Your task to perform on an android device: Add "energizer triple a" to the cart on costco Image 0: 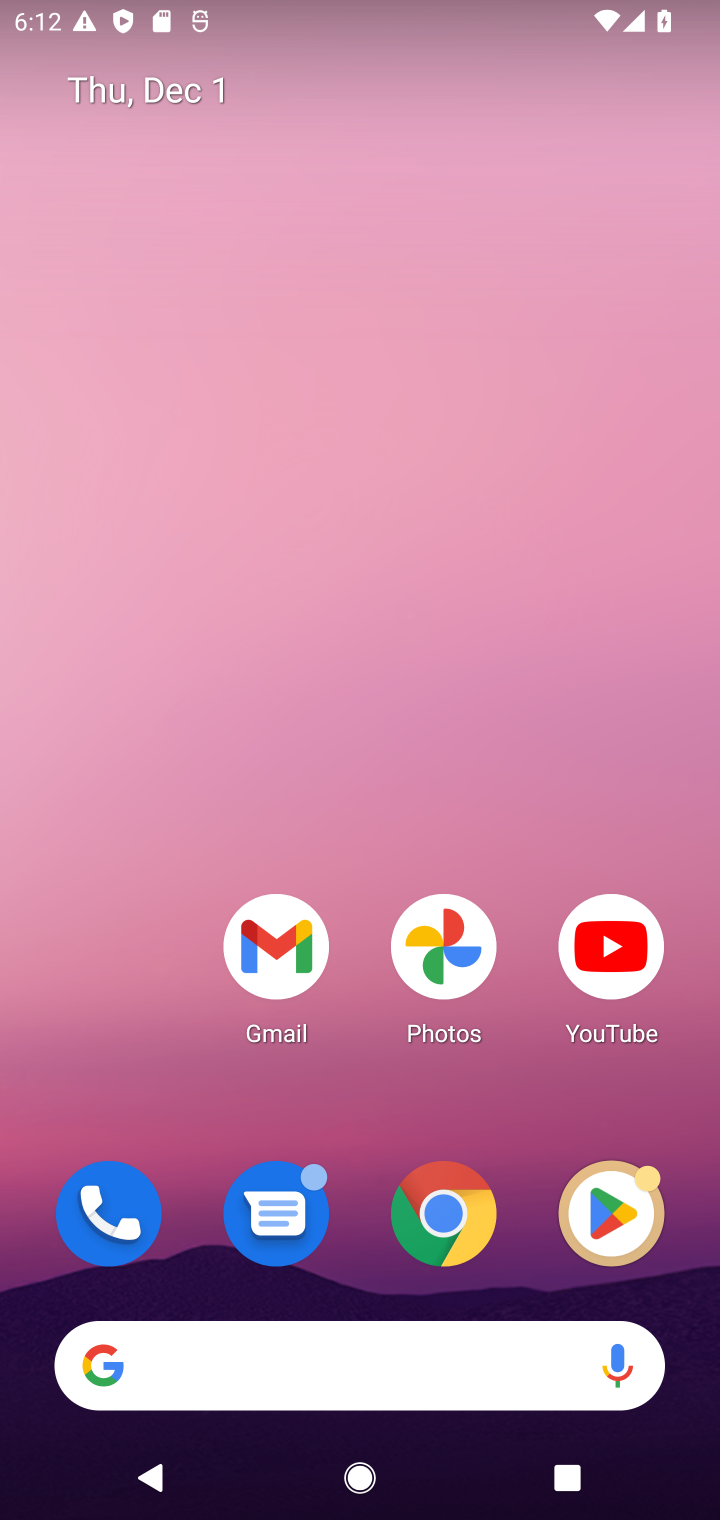
Step 0: click (453, 1348)
Your task to perform on an android device: Add "energizer triple a" to the cart on costco Image 1: 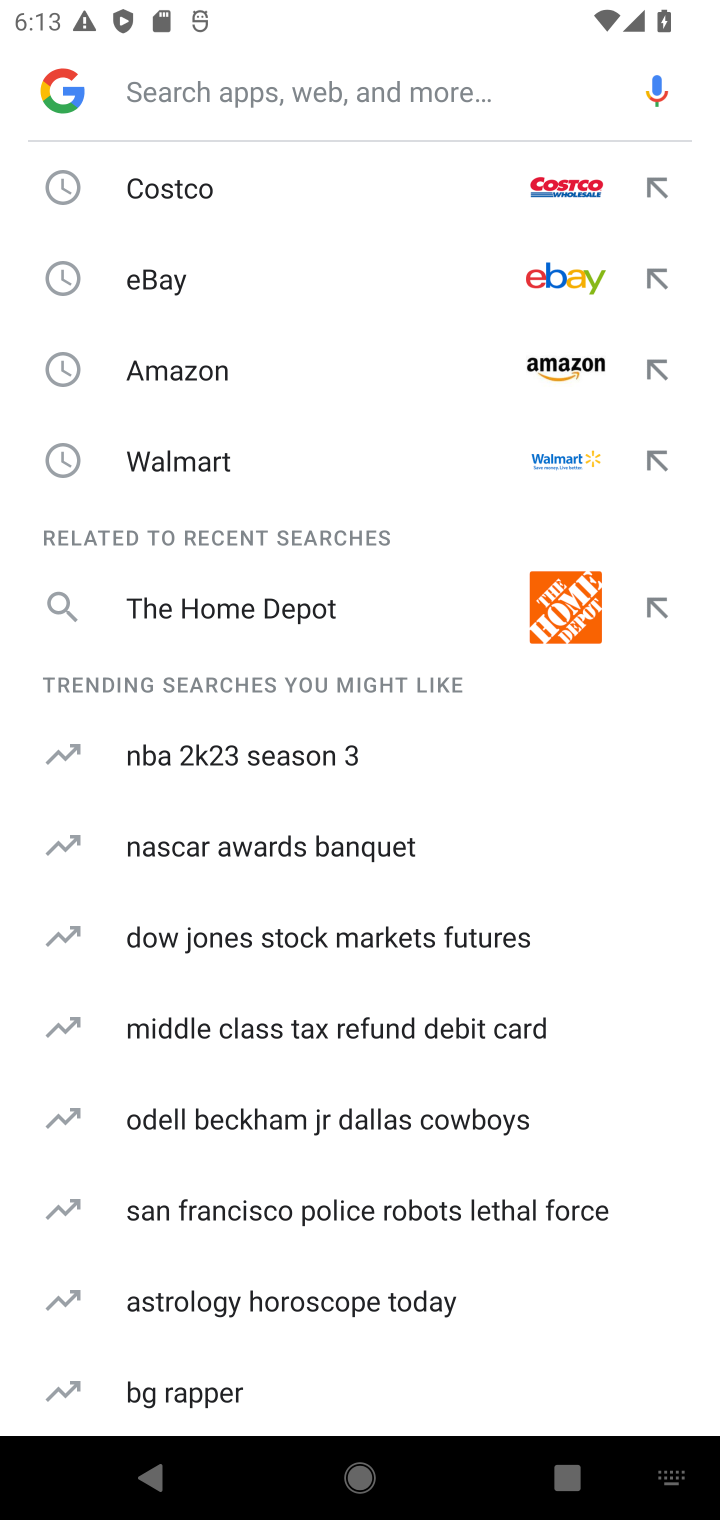
Step 1: click (177, 190)
Your task to perform on an android device: Add "energizer triple a" to the cart on costco Image 2: 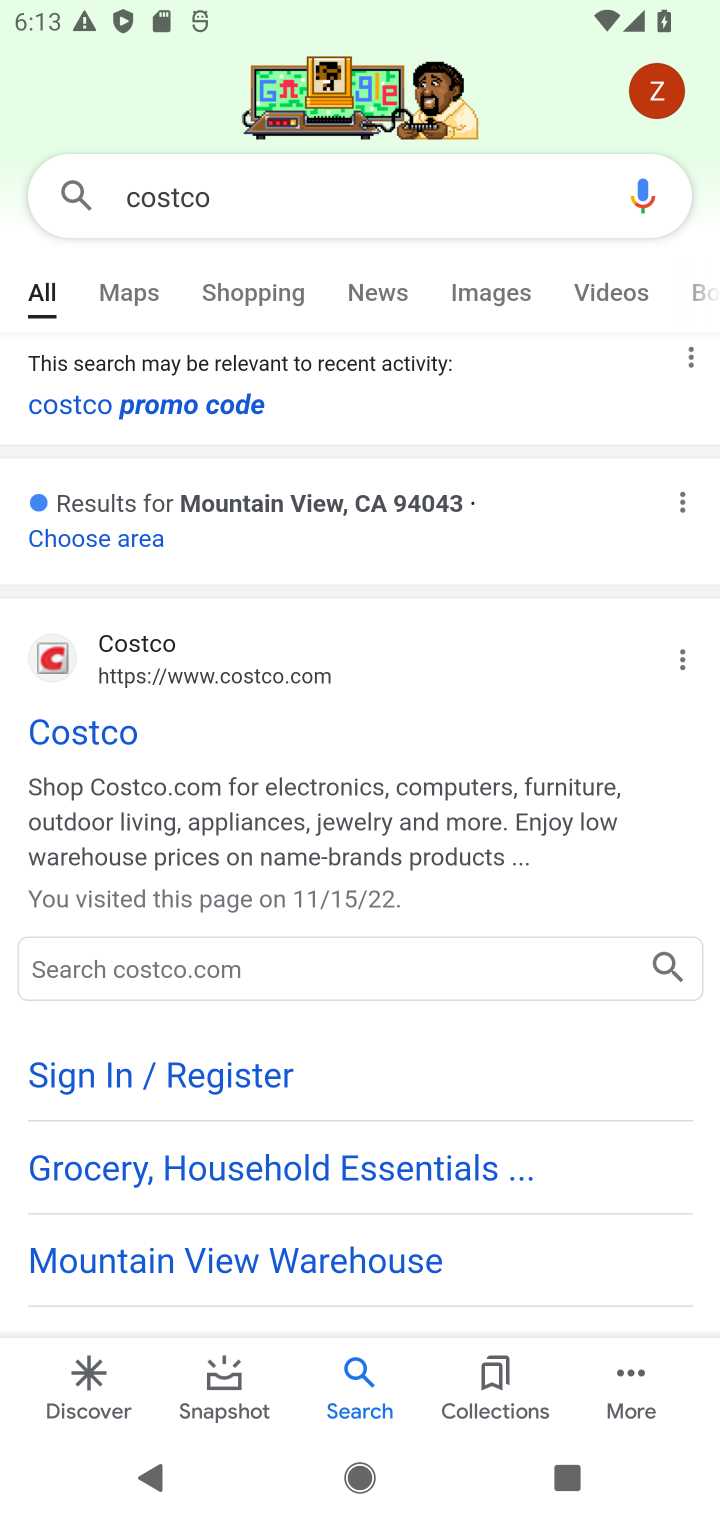
Step 2: click (65, 736)
Your task to perform on an android device: Add "energizer triple a" to the cart on costco Image 3: 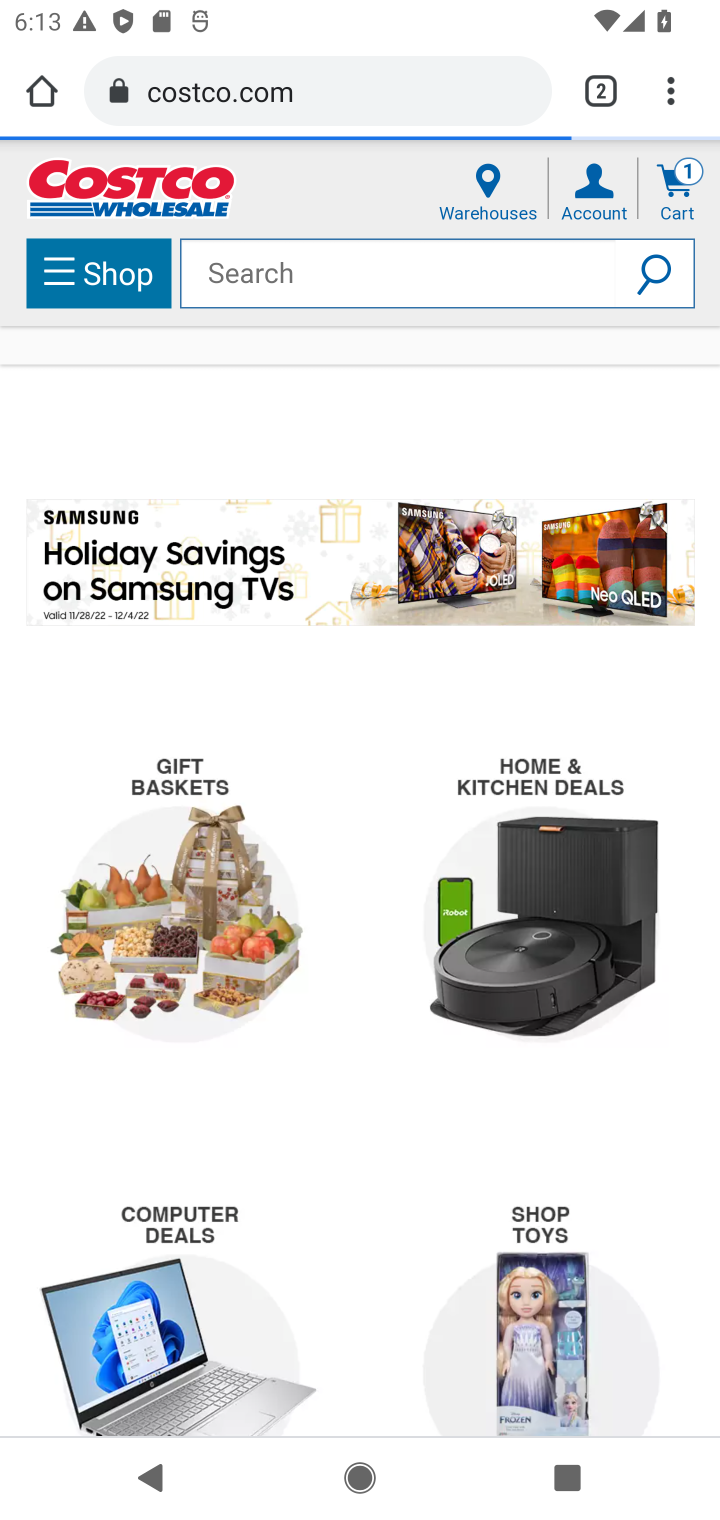
Step 3: click (253, 291)
Your task to perform on an android device: Add "energizer triple a" to the cart on costco Image 4: 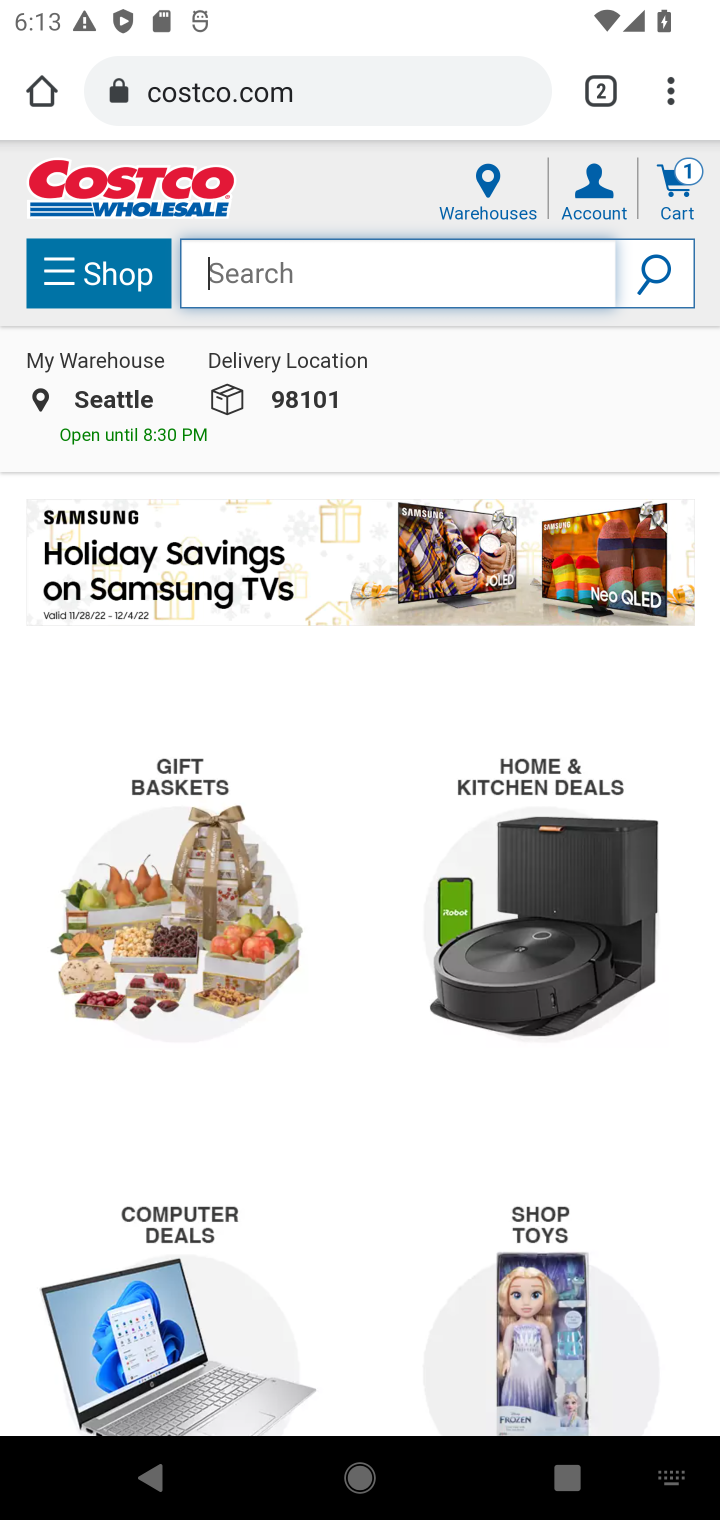
Step 4: type "energizer"
Your task to perform on an android device: Add "energizer triple a" to the cart on costco Image 5: 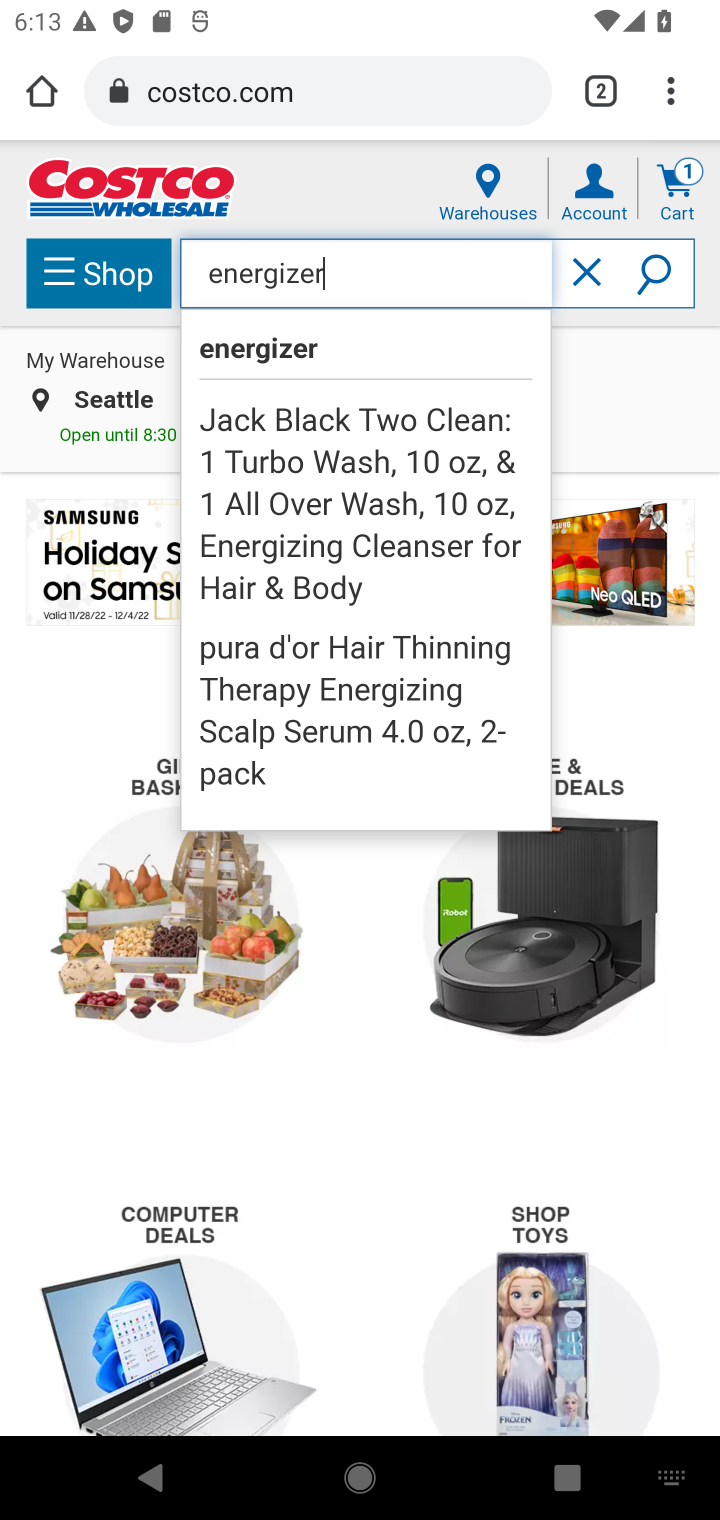
Step 5: click (333, 346)
Your task to perform on an android device: Add "energizer triple a" to the cart on costco Image 6: 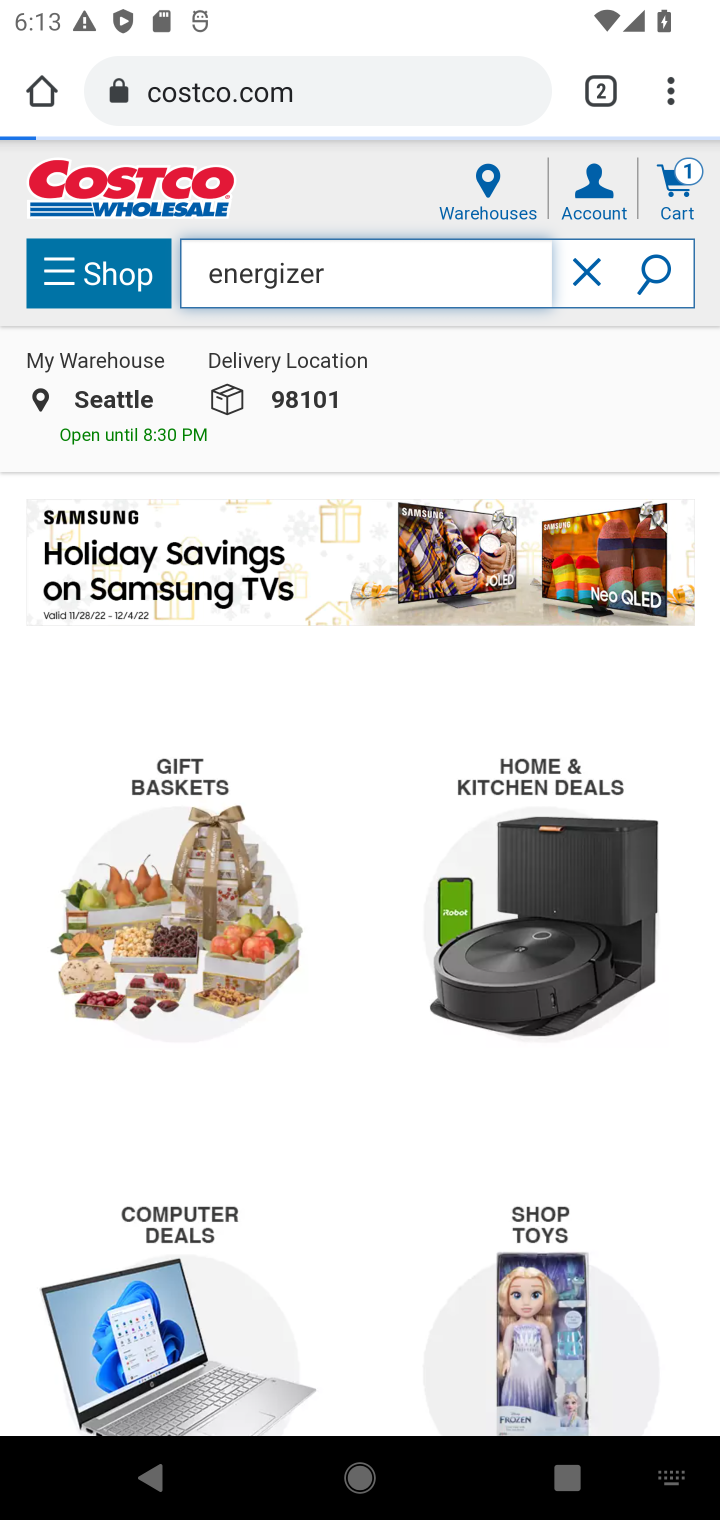
Step 6: click (659, 269)
Your task to perform on an android device: Add "energizer triple a" to the cart on costco Image 7: 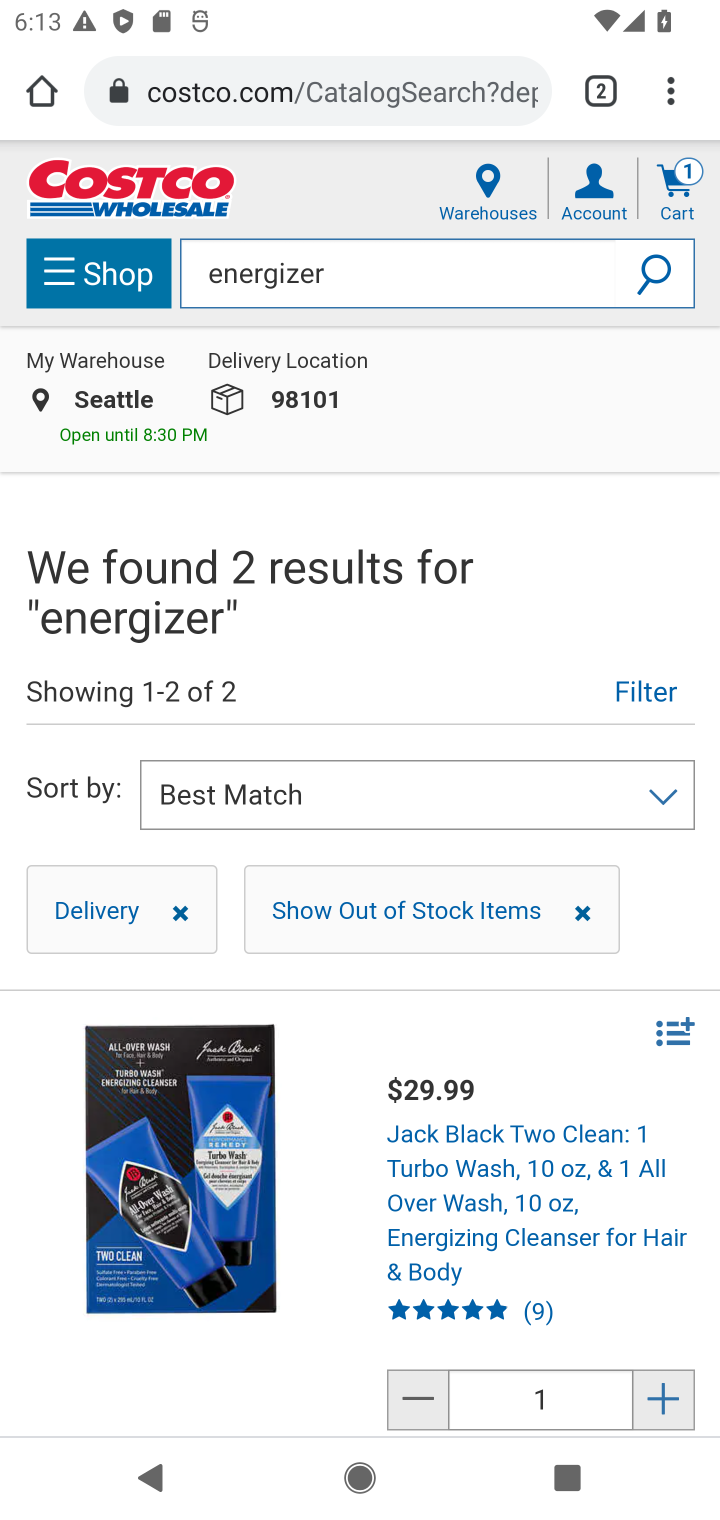
Step 7: click (661, 1385)
Your task to perform on an android device: Add "energizer triple a" to the cart on costco Image 8: 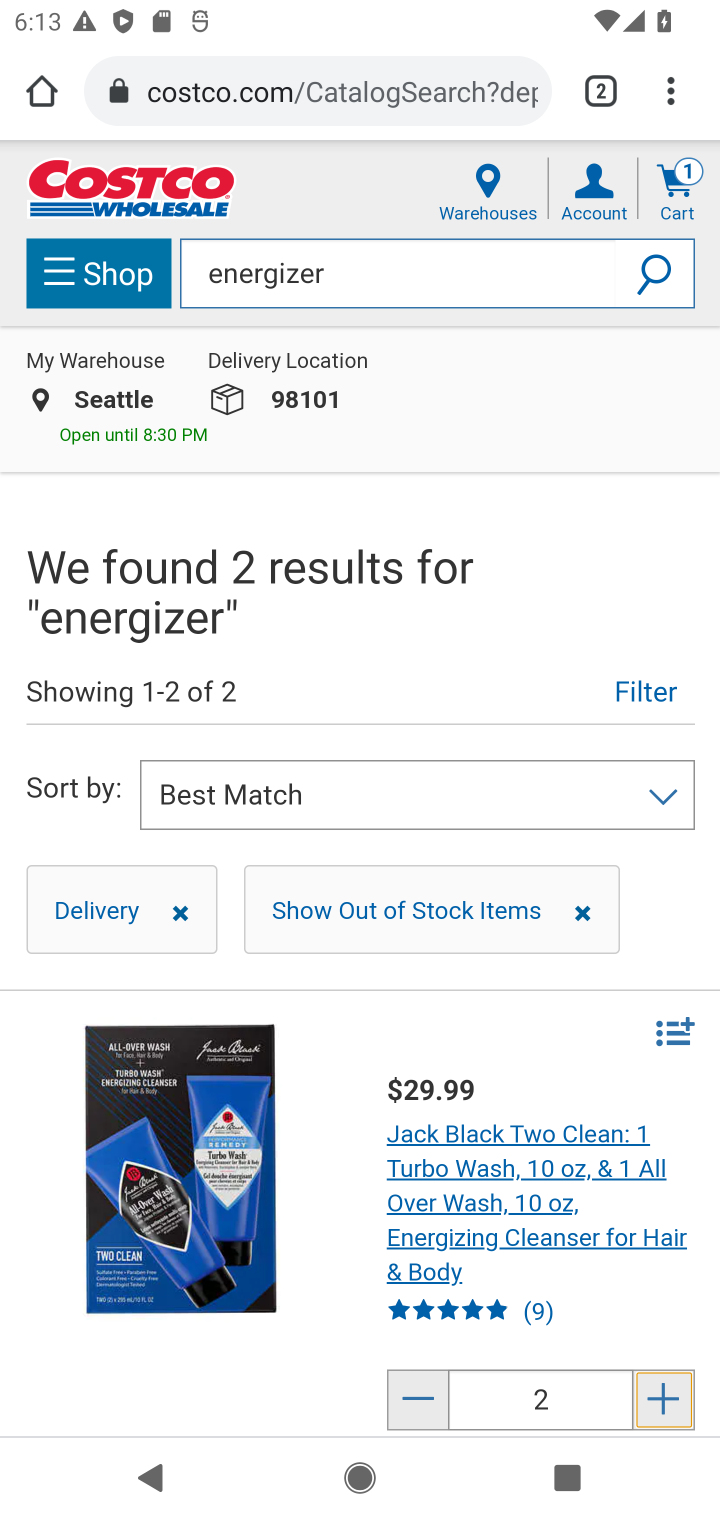
Step 8: task complete